Your task to perform on an android device: turn on the 24-hour format for clock Image 0: 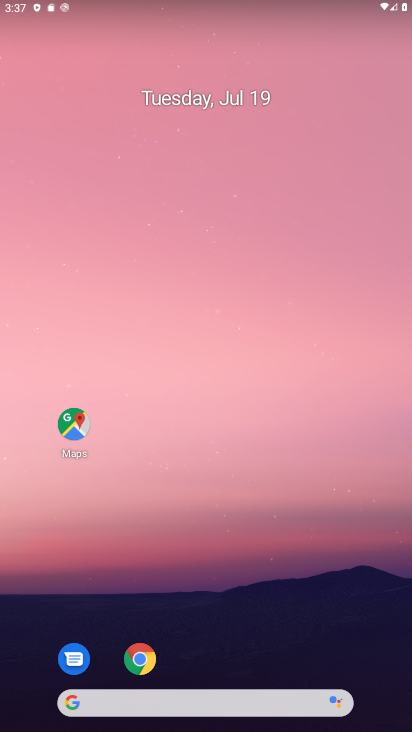
Step 0: click (259, 180)
Your task to perform on an android device: turn on the 24-hour format for clock Image 1: 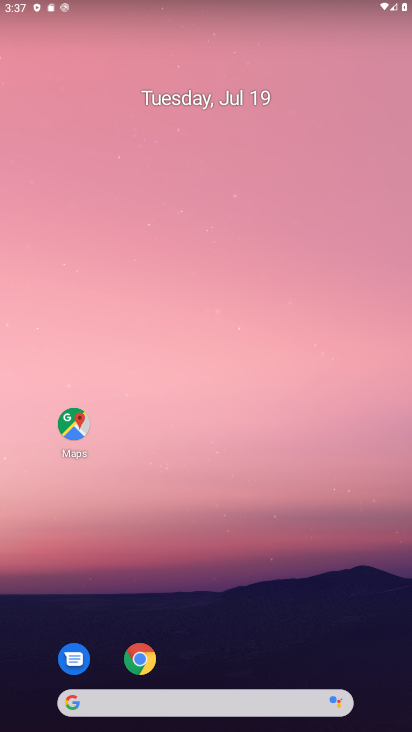
Step 1: click (80, 416)
Your task to perform on an android device: turn on the 24-hour format for clock Image 2: 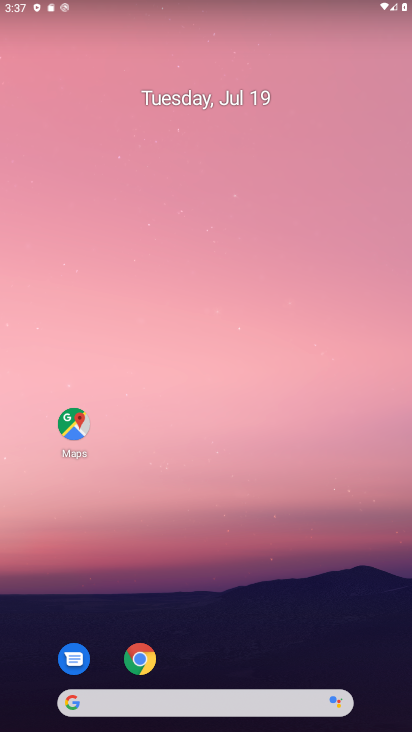
Step 2: click (80, 416)
Your task to perform on an android device: turn on the 24-hour format for clock Image 3: 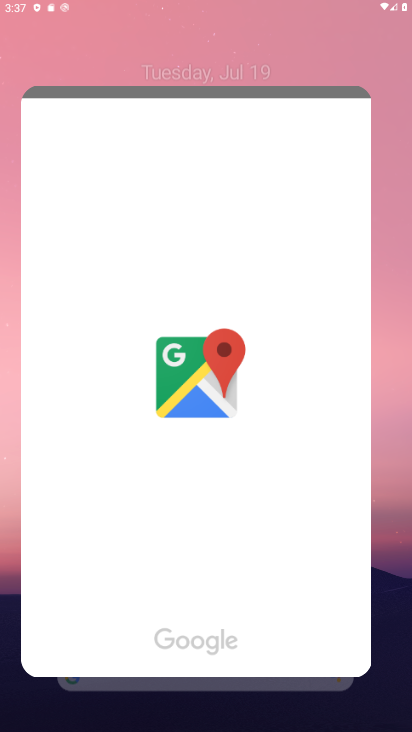
Step 3: click (78, 417)
Your task to perform on an android device: turn on the 24-hour format for clock Image 4: 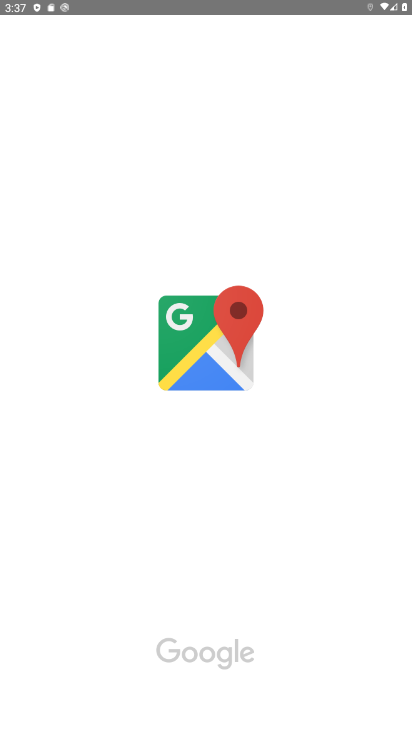
Step 4: click (77, 418)
Your task to perform on an android device: turn on the 24-hour format for clock Image 5: 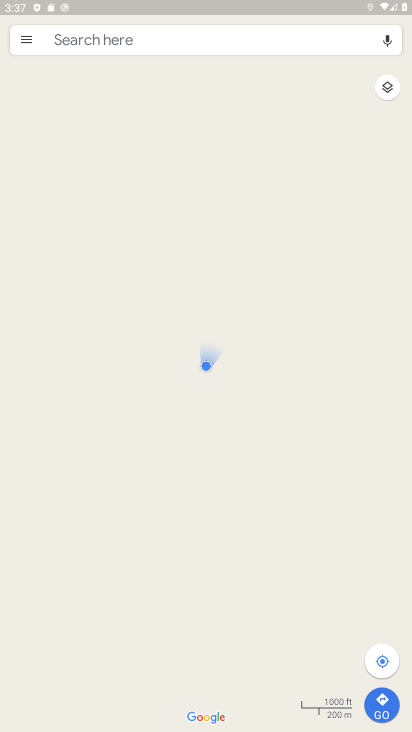
Step 5: task complete